Your task to perform on an android device: toggle javascript in the chrome app Image 0: 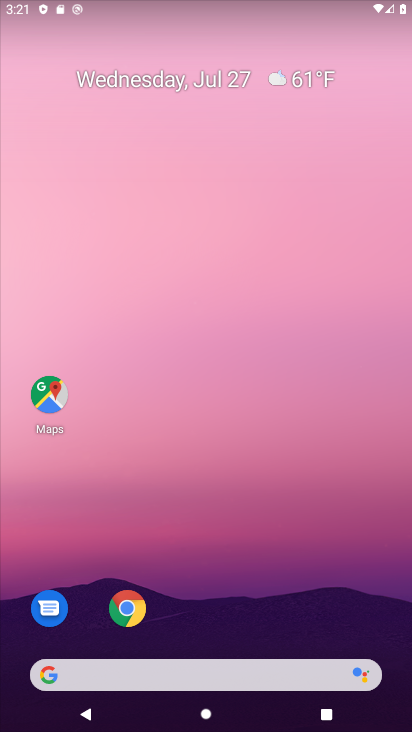
Step 0: click (123, 614)
Your task to perform on an android device: toggle javascript in the chrome app Image 1: 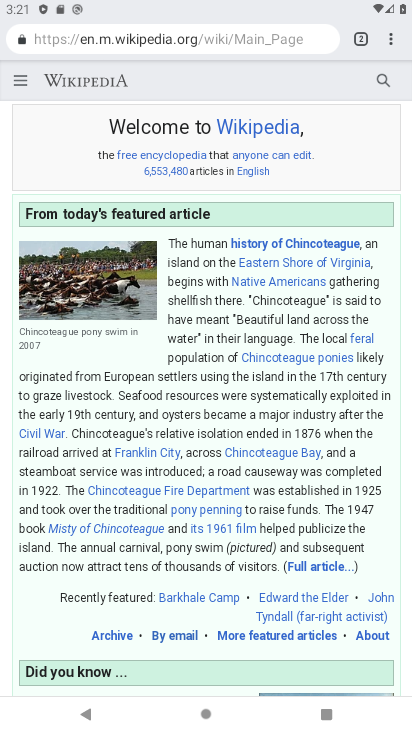
Step 1: click (389, 44)
Your task to perform on an android device: toggle javascript in the chrome app Image 2: 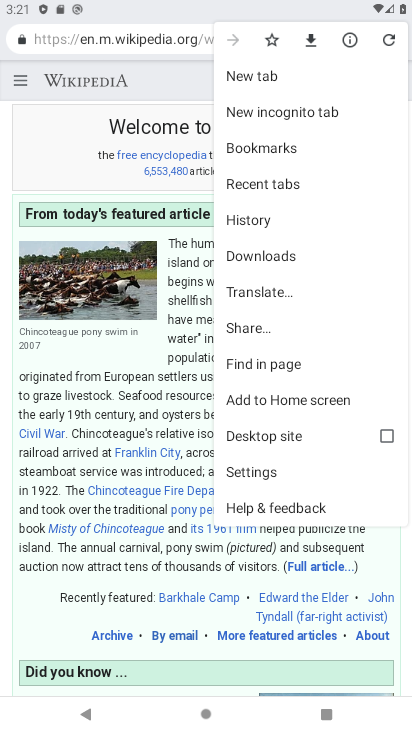
Step 2: click (259, 473)
Your task to perform on an android device: toggle javascript in the chrome app Image 3: 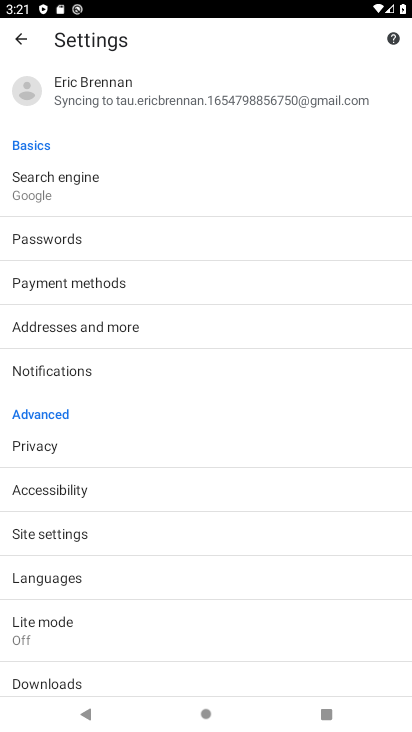
Step 3: click (56, 532)
Your task to perform on an android device: toggle javascript in the chrome app Image 4: 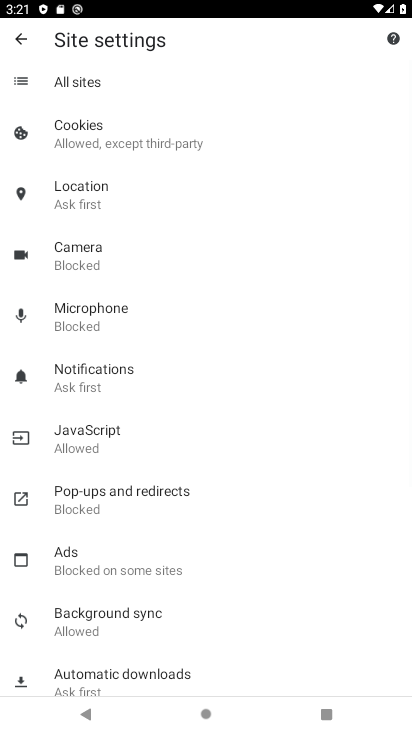
Step 4: click (59, 423)
Your task to perform on an android device: toggle javascript in the chrome app Image 5: 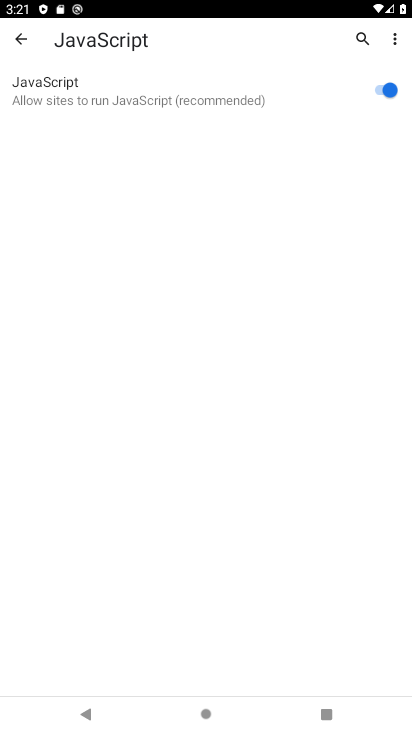
Step 5: click (376, 90)
Your task to perform on an android device: toggle javascript in the chrome app Image 6: 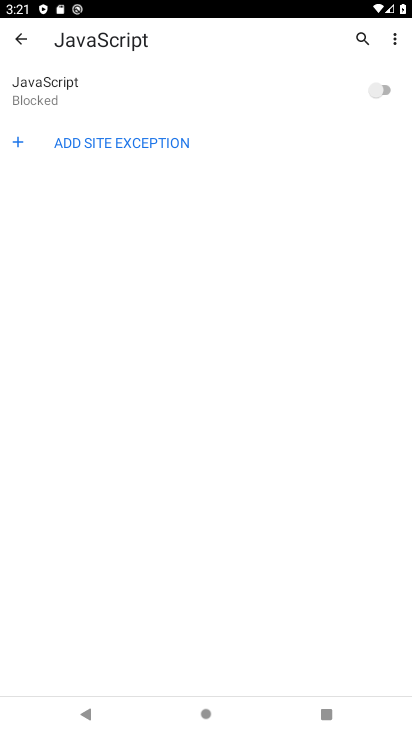
Step 6: task complete